Your task to perform on an android device: Open battery settings Image 0: 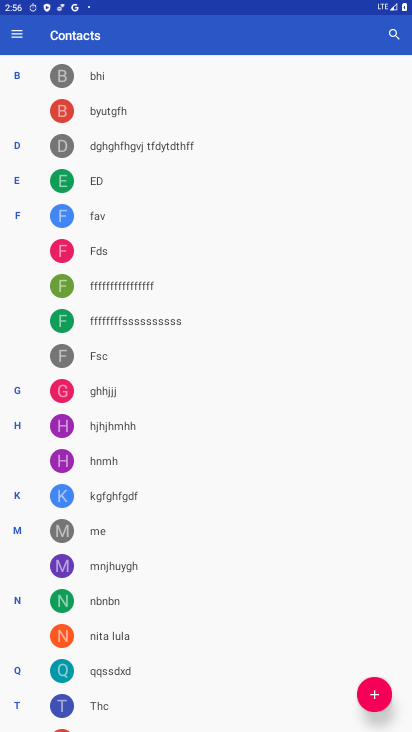
Step 0: press home button
Your task to perform on an android device: Open battery settings Image 1: 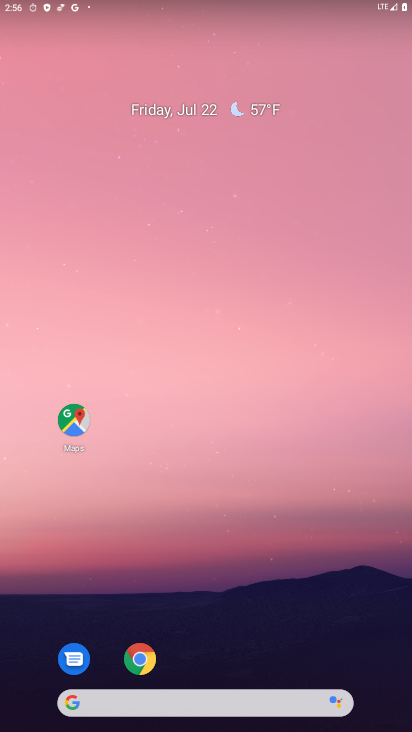
Step 1: drag from (297, 586) to (280, 186)
Your task to perform on an android device: Open battery settings Image 2: 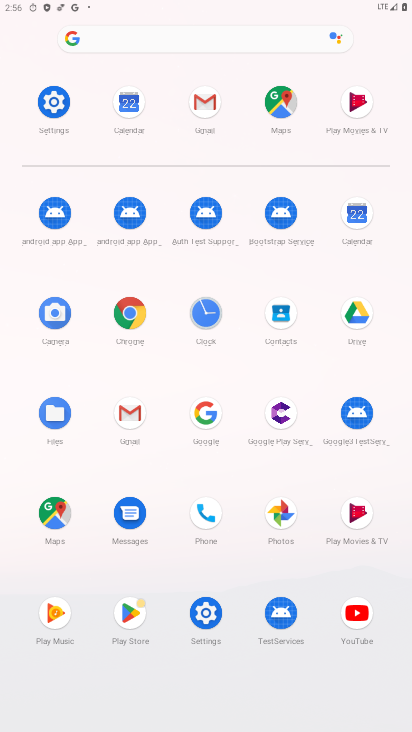
Step 2: click (58, 107)
Your task to perform on an android device: Open battery settings Image 3: 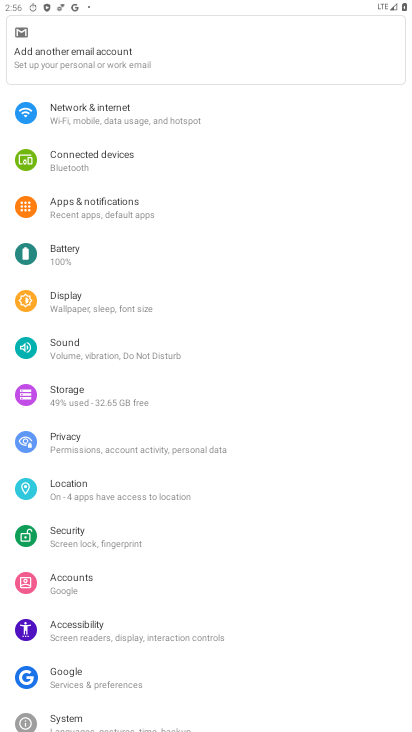
Step 3: click (80, 256)
Your task to perform on an android device: Open battery settings Image 4: 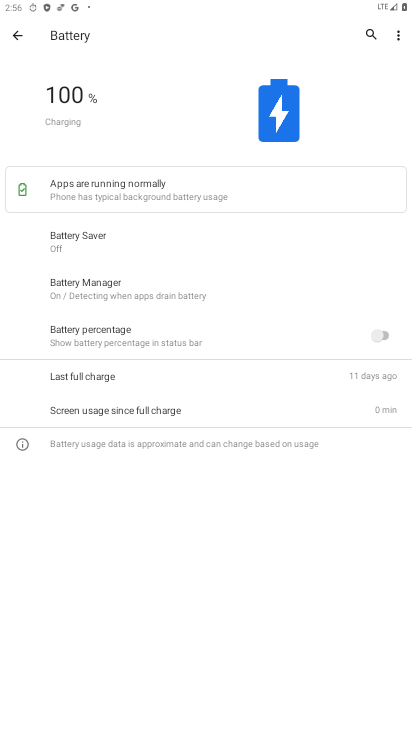
Step 4: task complete